Your task to perform on an android device: change the clock display to analog Image 0: 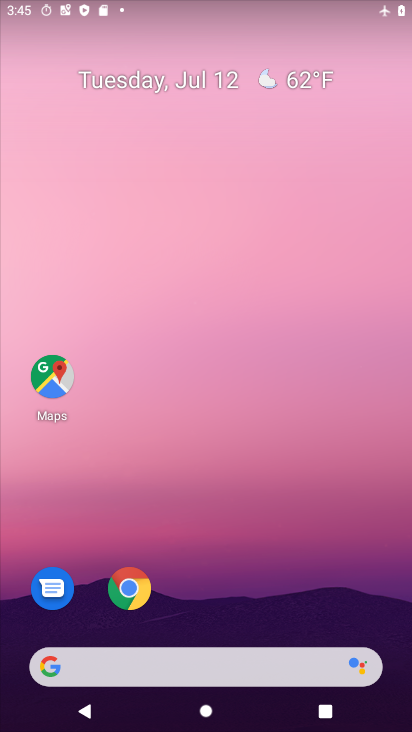
Step 0: click (399, 347)
Your task to perform on an android device: change the clock display to analog Image 1: 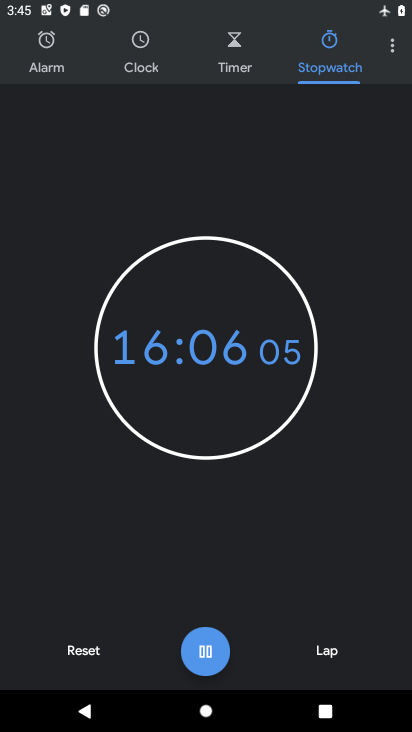
Step 1: click (388, 35)
Your task to perform on an android device: change the clock display to analog Image 2: 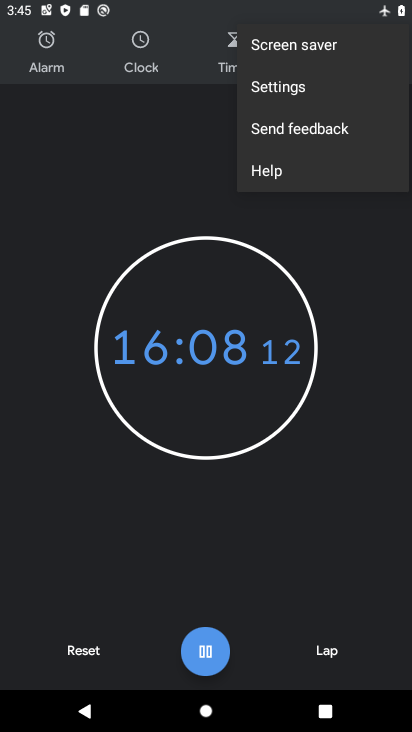
Step 2: click (319, 96)
Your task to perform on an android device: change the clock display to analog Image 3: 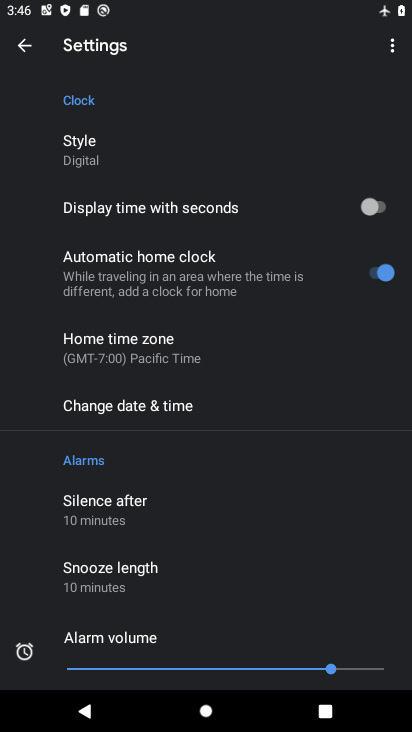
Step 3: click (100, 158)
Your task to perform on an android device: change the clock display to analog Image 4: 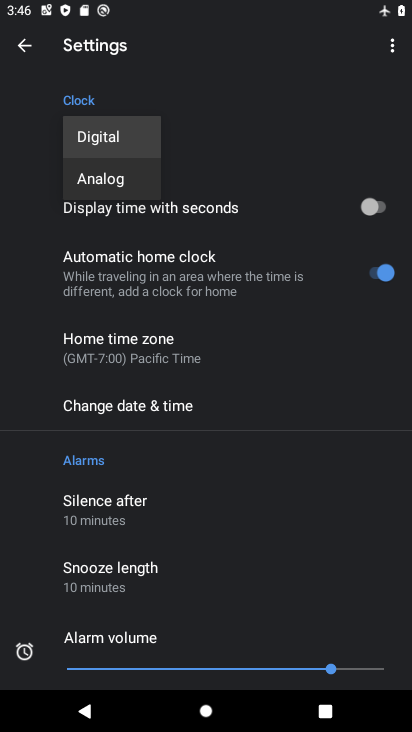
Step 4: click (116, 175)
Your task to perform on an android device: change the clock display to analog Image 5: 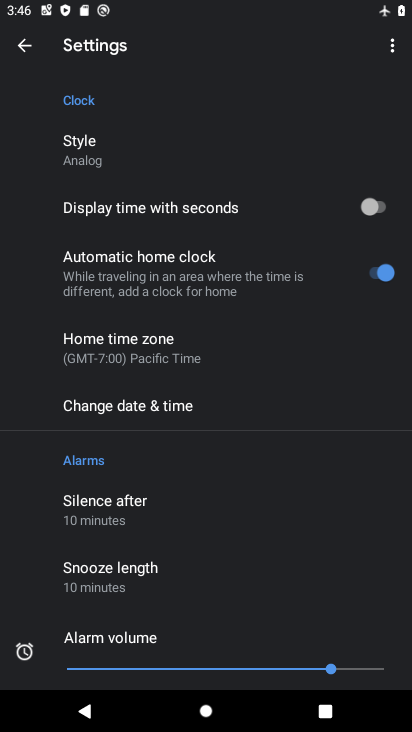
Step 5: task complete